Your task to perform on an android device: Go to settings Image 0: 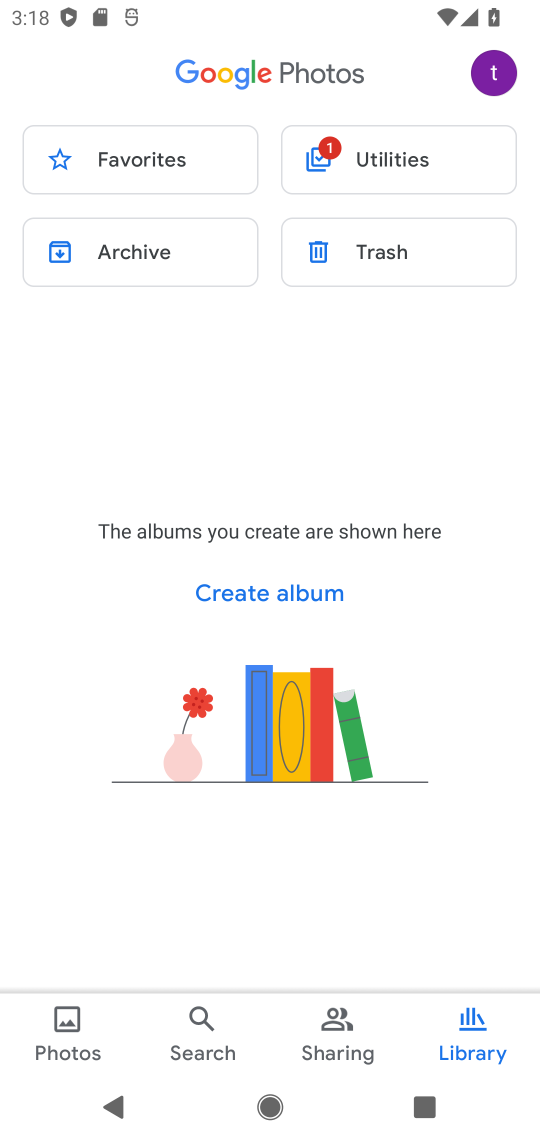
Step 0: press home button
Your task to perform on an android device: Go to settings Image 1: 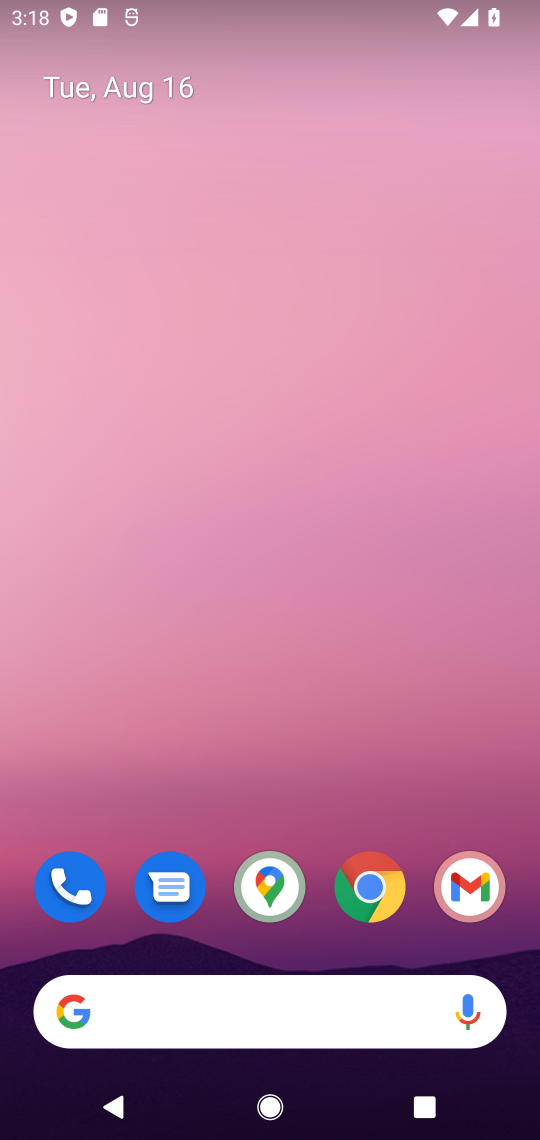
Step 1: drag from (298, 747) to (512, 392)
Your task to perform on an android device: Go to settings Image 2: 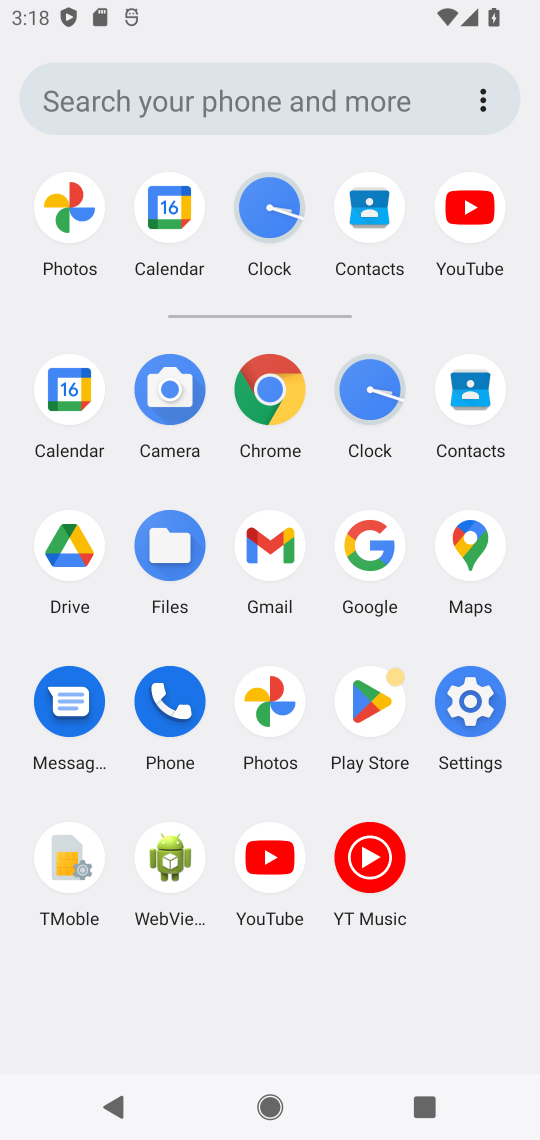
Step 2: click (453, 696)
Your task to perform on an android device: Go to settings Image 3: 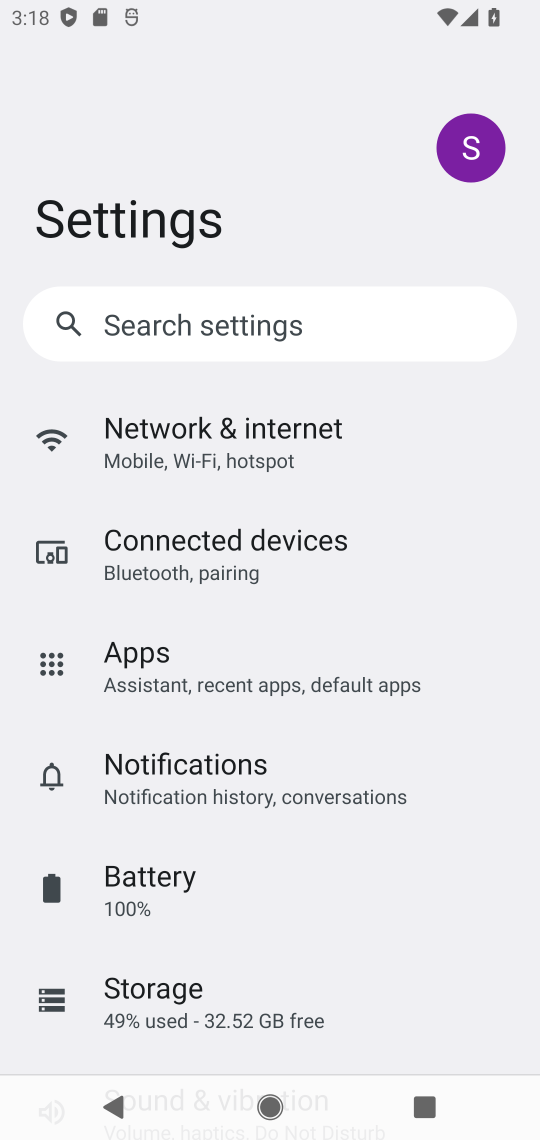
Step 3: task complete